Your task to perform on an android device: toggle data saver in the chrome app Image 0: 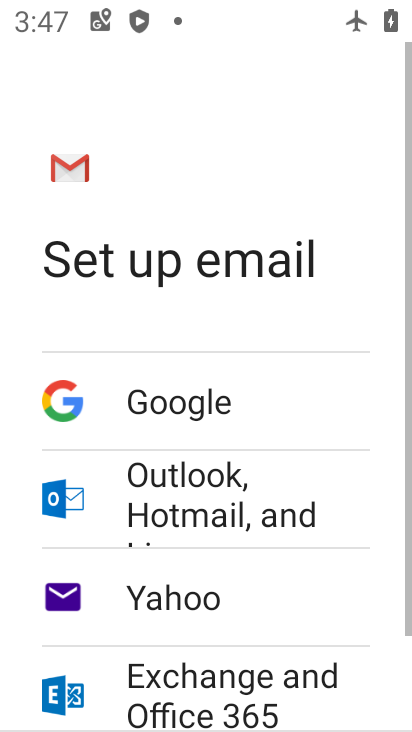
Step 0: press home button
Your task to perform on an android device: toggle data saver in the chrome app Image 1: 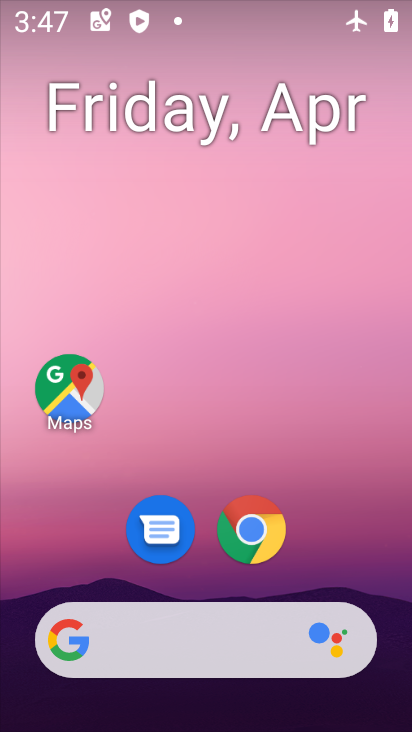
Step 1: click (240, 531)
Your task to perform on an android device: toggle data saver in the chrome app Image 2: 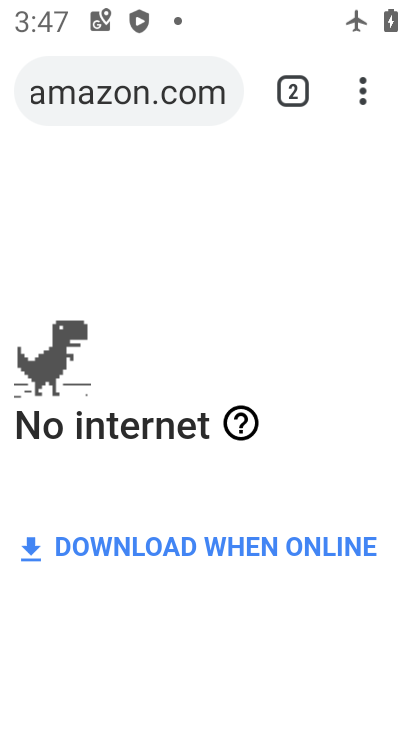
Step 2: click (360, 95)
Your task to perform on an android device: toggle data saver in the chrome app Image 3: 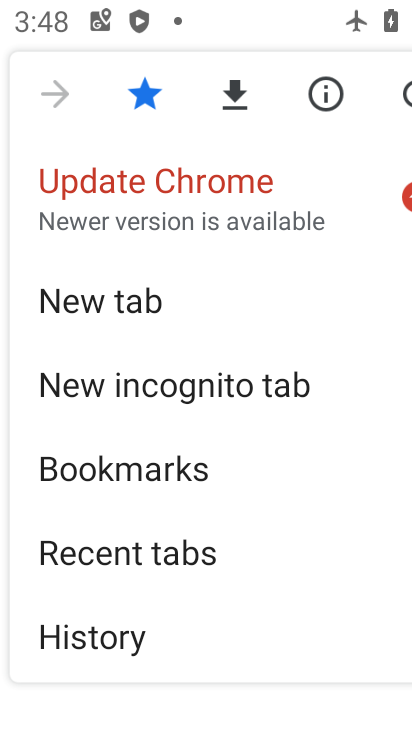
Step 3: drag from (197, 623) to (255, 355)
Your task to perform on an android device: toggle data saver in the chrome app Image 4: 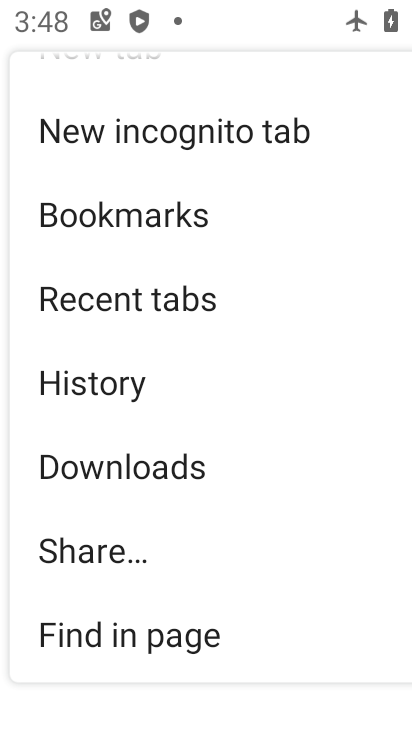
Step 4: drag from (238, 585) to (292, 251)
Your task to perform on an android device: toggle data saver in the chrome app Image 5: 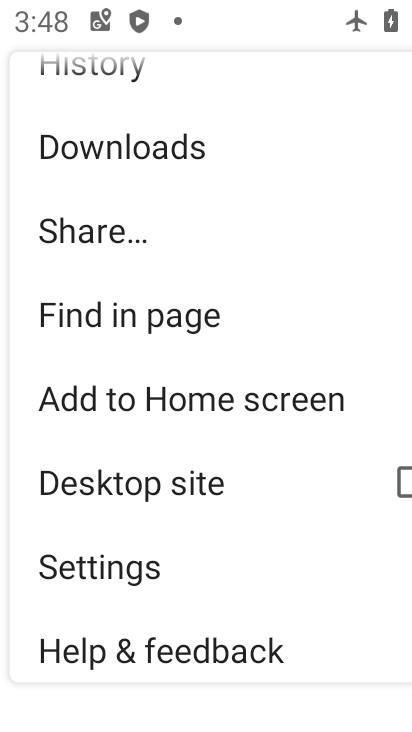
Step 5: click (238, 571)
Your task to perform on an android device: toggle data saver in the chrome app Image 6: 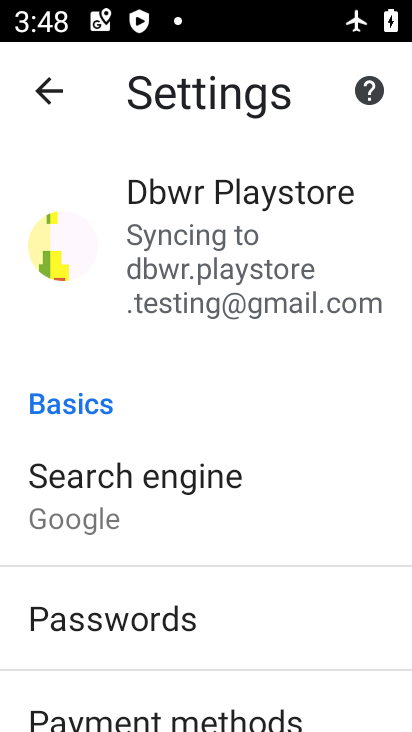
Step 6: drag from (257, 626) to (286, 261)
Your task to perform on an android device: toggle data saver in the chrome app Image 7: 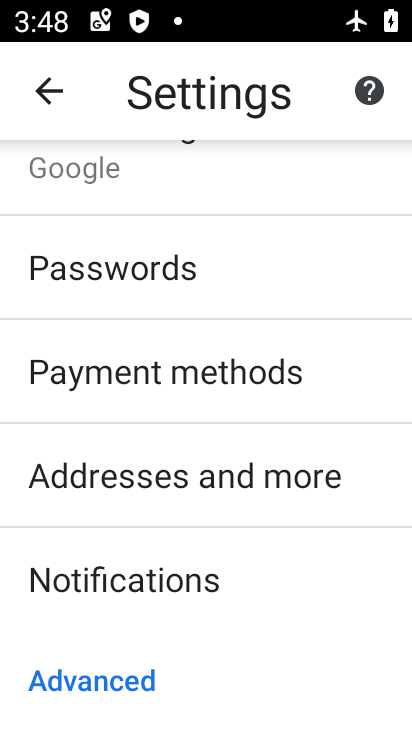
Step 7: drag from (291, 512) to (312, 164)
Your task to perform on an android device: toggle data saver in the chrome app Image 8: 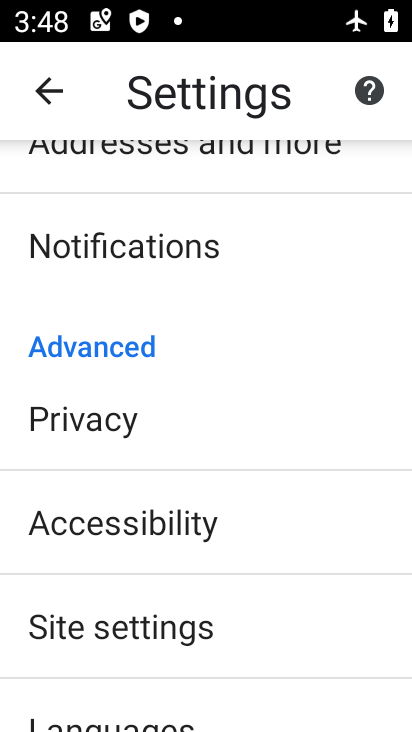
Step 8: drag from (188, 685) to (219, 399)
Your task to perform on an android device: toggle data saver in the chrome app Image 9: 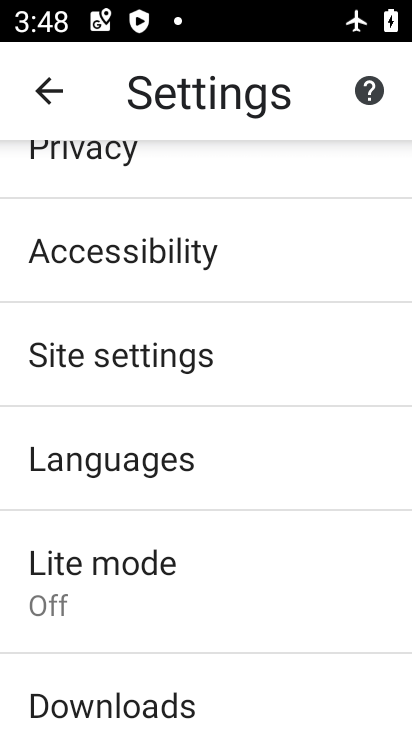
Step 9: click (219, 603)
Your task to perform on an android device: toggle data saver in the chrome app Image 10: 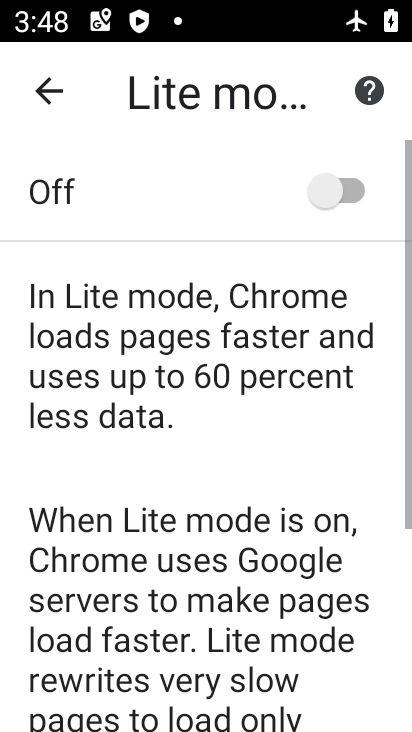
Step 10: click (323, 194)
Your task to perform on an android device: toggle data saver in the chrome app Image 11: 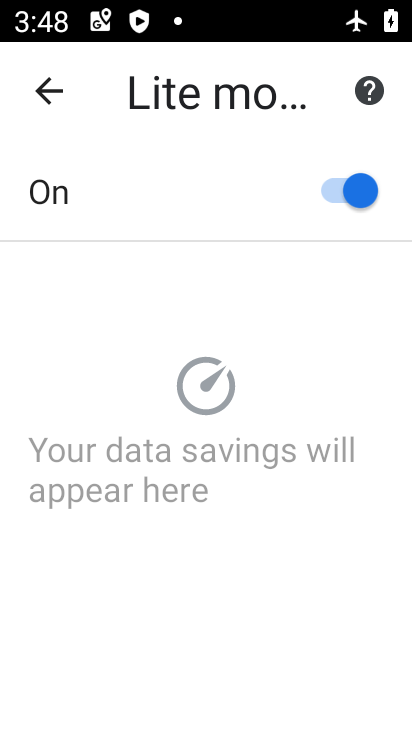
Step 11: task complete